Your task to perform on an android device: turn off translation in the chrome app Image 0: 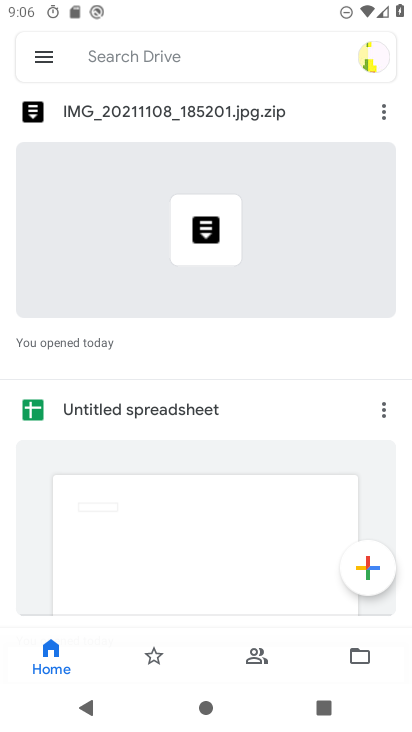
Step 0: press home button
Your task to perform on an android device: turn off translation in the chrome app Image 1: 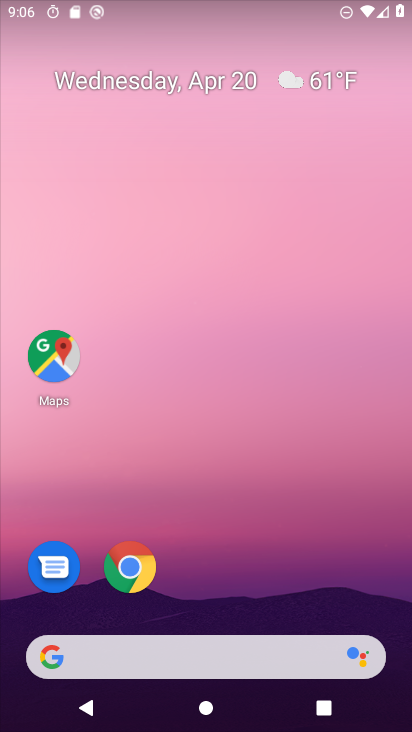
Step 1: click (126, 575)
Your task to perform on an android device: turn off translation in the chrome app Image 2: 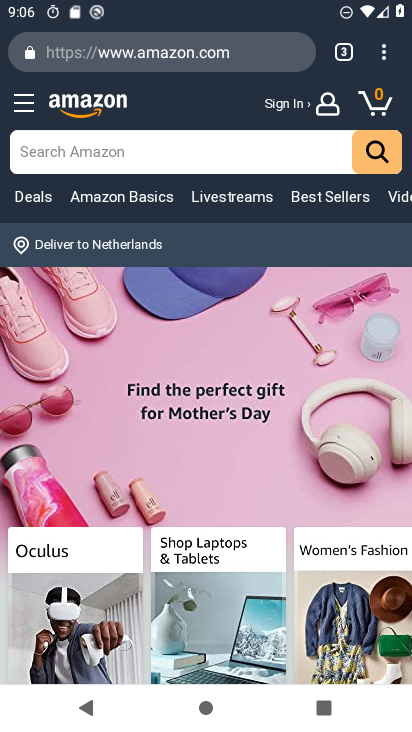
Step 2: click (389, 50)
Your task to perform on an android device: turn off translation in the chrome app Image 3: 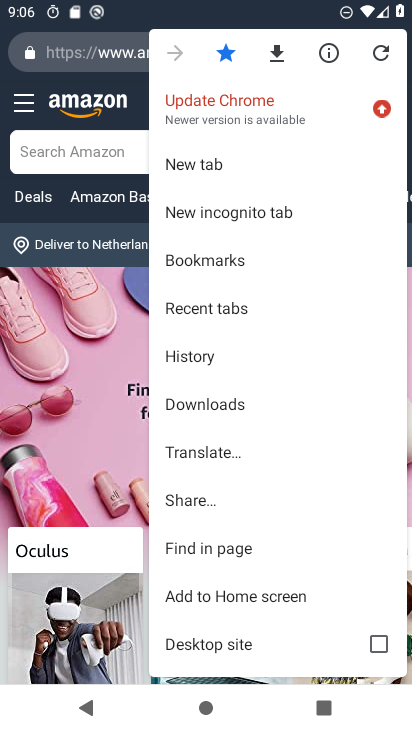
Step 3: drag from (352, 529) to (332, 139)
Your task to perform on an android device: turn off translation in the chrome app Image 4: 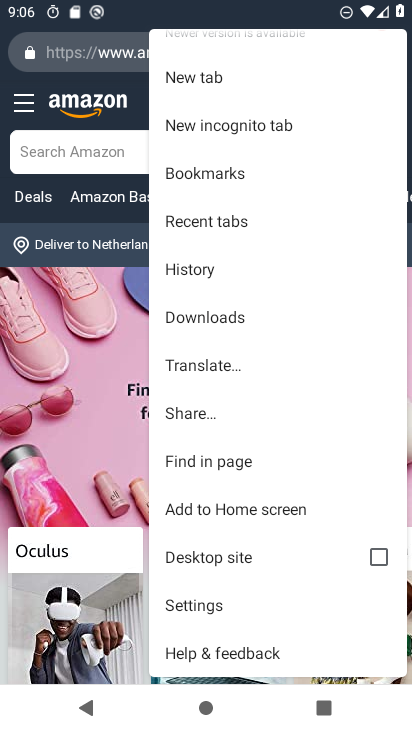
Step 4: click (209, 609)
Your task to perform on an android device: turn off translation in the chrome app Image 5: 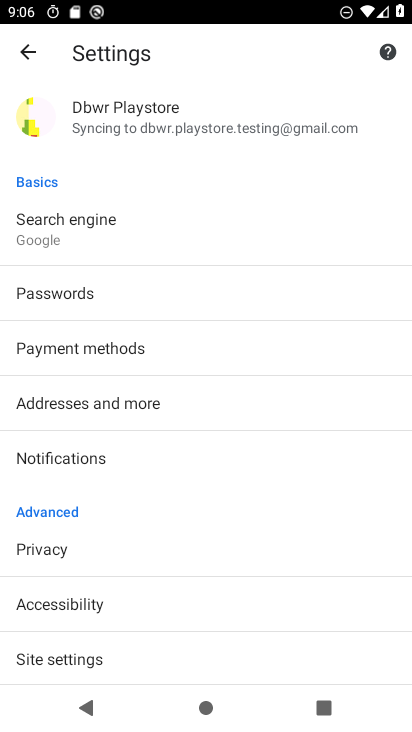
Step 5: drag from (134, 613) to (155, 332)
Your task to perform on an android device: turn off translation in the chrome app Image 6: 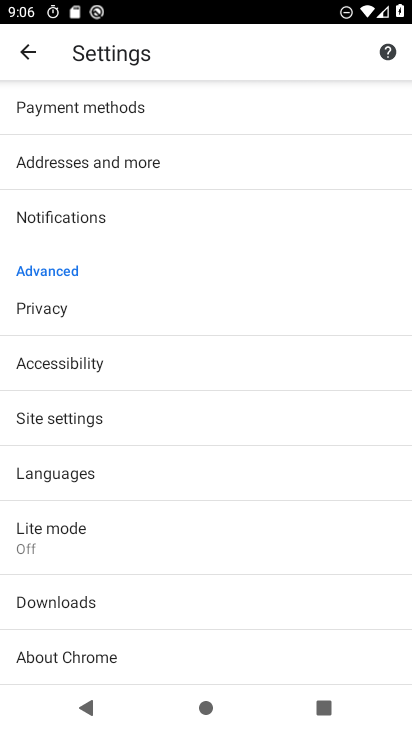
Step 6: click (53, 477)
Your task to perform on an android device: turn off translation in the chrome app Image 7: 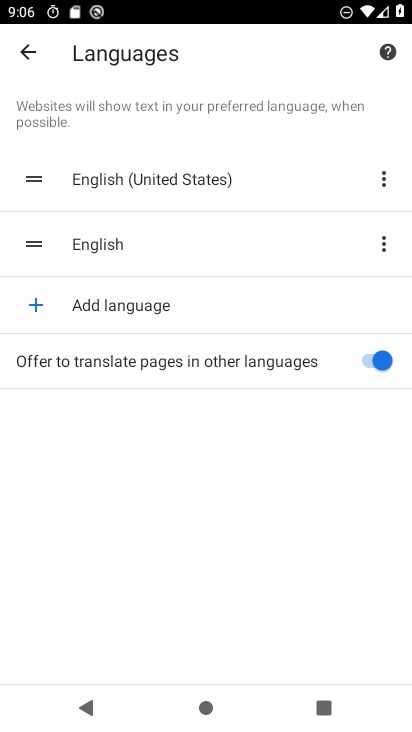
Step 7: click (378, 369)
Your task to perform on an android device: turn off translation in the chrome app Image 8: 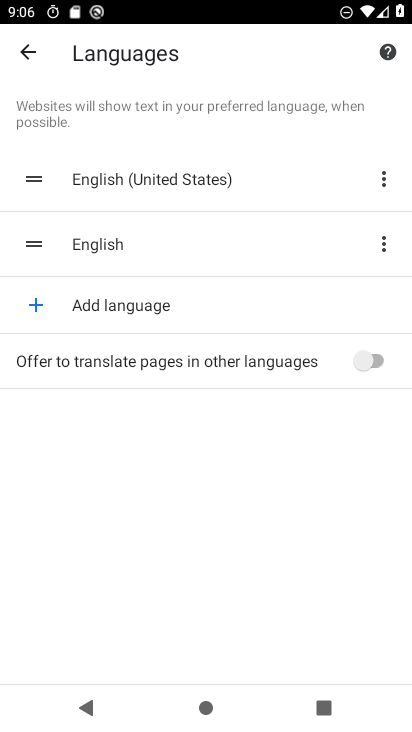
Step 8: task complete